Your task to perform on an android device: Is it going to rain today? Image 0: 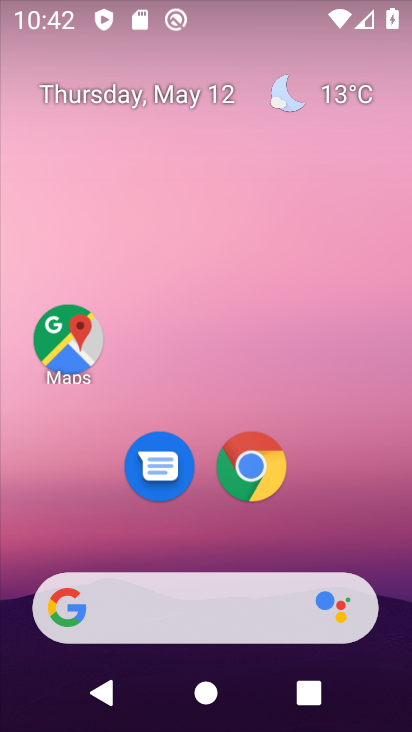
Step 0: drag from (340, 539) to (378, 162)
Your task to perform on an android device: Is it going to rain today? Image 1: 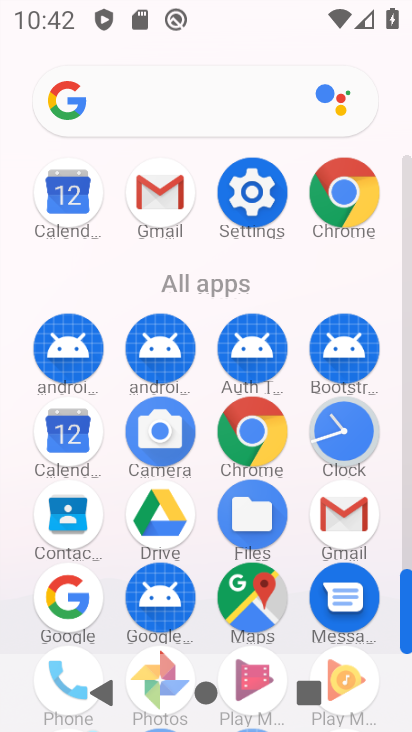
Step 1: click (284, 437)
Your task to perform on an android device: Is it going to rain today? Image 2: 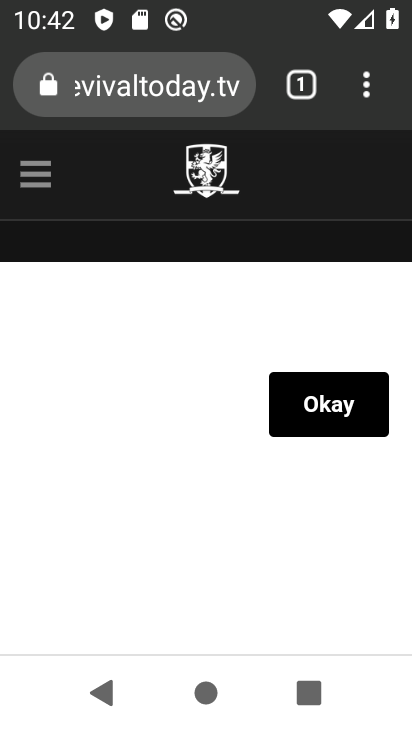
Step 2: click (111, 86)
Your task to perform on an android device: Is it going to rain today? Image 3: 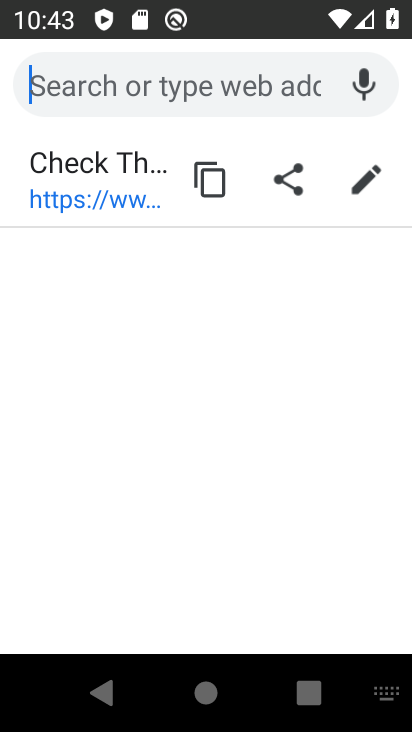
Step 3: type "is it going to rain today"
Your task to perform on an android device: Is it going to rain today? Image 4: 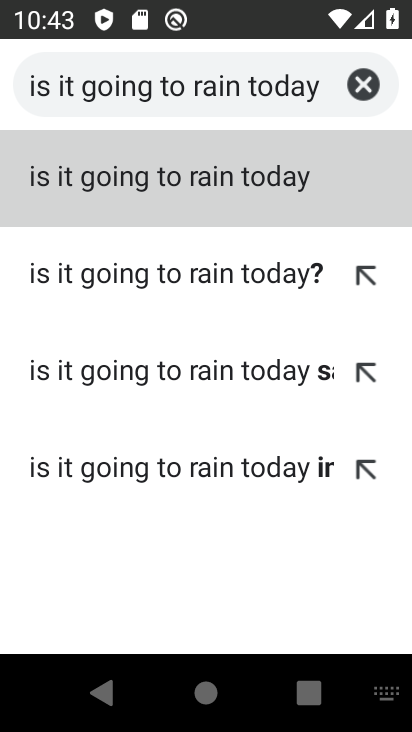
Step 4: click (167, 188)
Your task to perform on an android device: Is it going to rain today? Image 5: 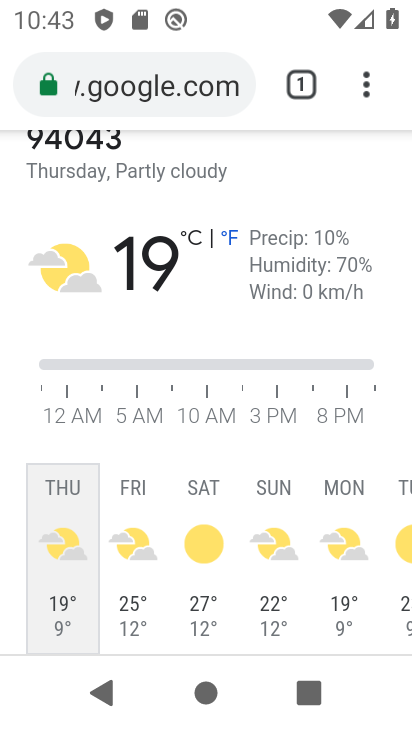
Step 5: task complete